Your task to perform on an android device: turn off airplane mode Image 0: 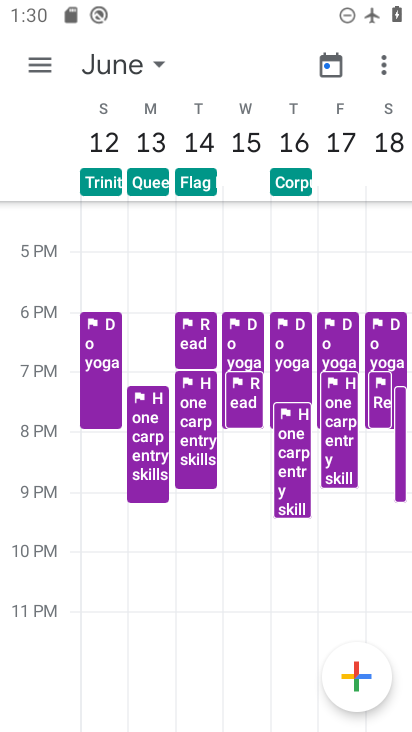
Step 0: press home button
Your task to perform on an android device: turn off airplane mode Image 1: 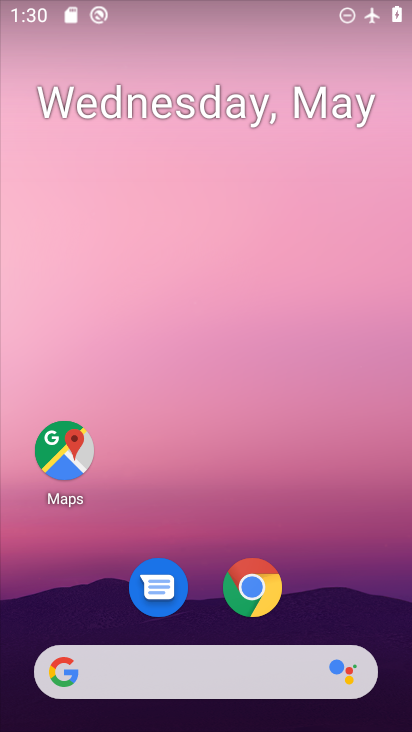
Step 1: drag from (325, 600) to (207, 160)
Your task to perform on an android device: turn off airplane mode Image 2: 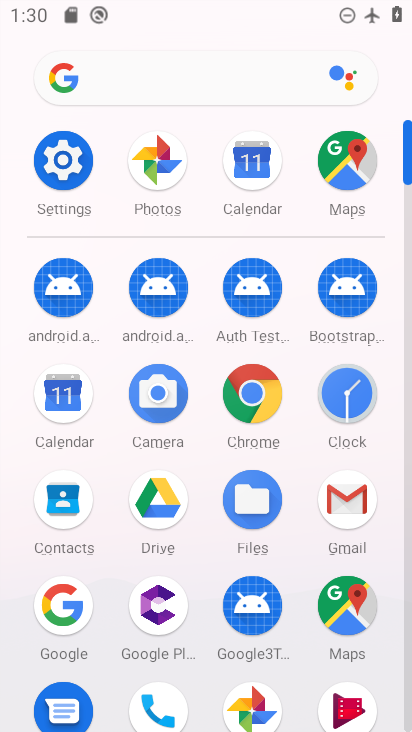
Step 2: click (79, 207)
Your task to perform on an android device: turn off airplane mode Image 3: 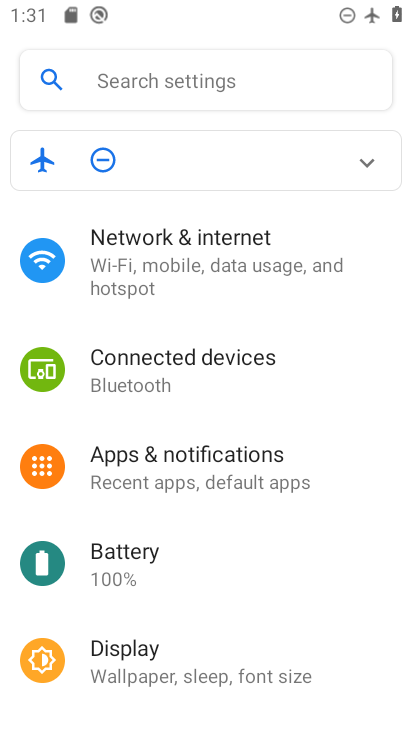
Step 3: click (362, 164)
Your task to perform on an android device: turn off airplane mode Image 4: 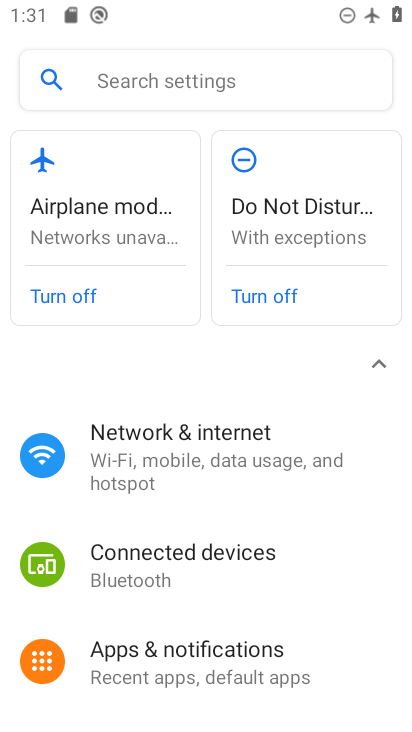
Step 4: click (84, 300)
Your task to perform on an android device: turn off airplane mode Image 5: 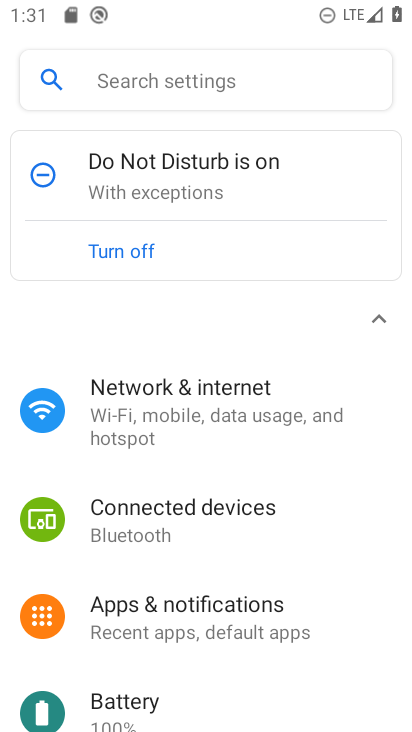
Step 5: task complete